Your task to perform on an android device: add a contact in the contacts app Image 0: 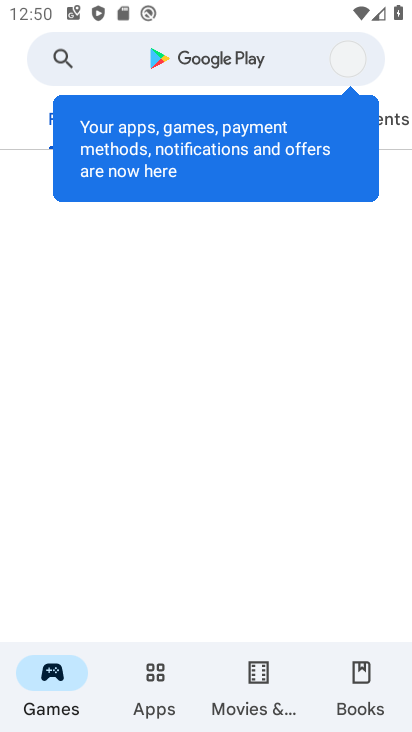
Step 0: press home button
Your task to perform on an android device: add a contact in the contacts app Image 1: 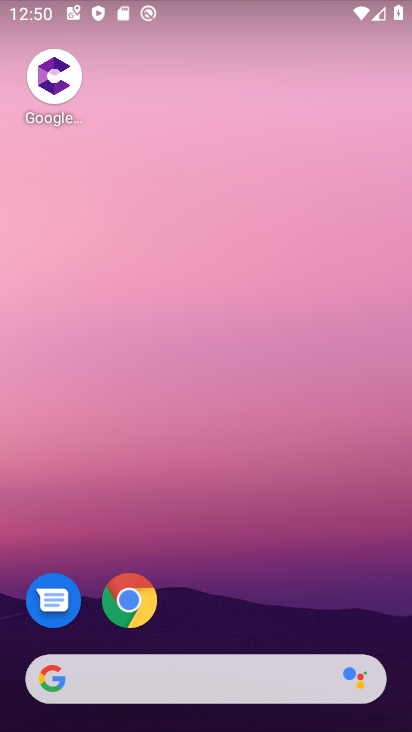
Step 1: drag from (320, 629) to (367, 188)
Your task to perform on an android device: add a contact in the contacts app Image 2: 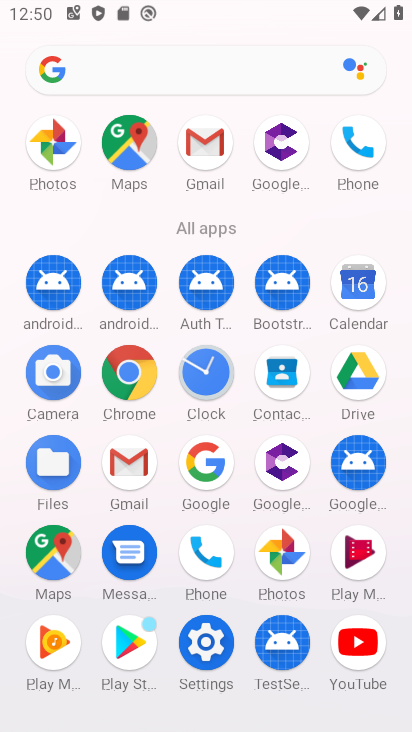
Step 2: click (290, 386)
Your task to perform on an android device: add a contact in the contacts app Image 3: 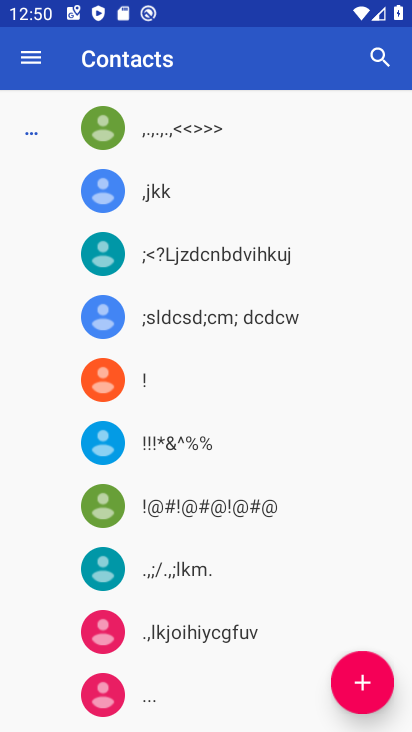
Step 3: click (354, 678)
Your task to perform on an android device: add a contact in the contacts app Image 4: 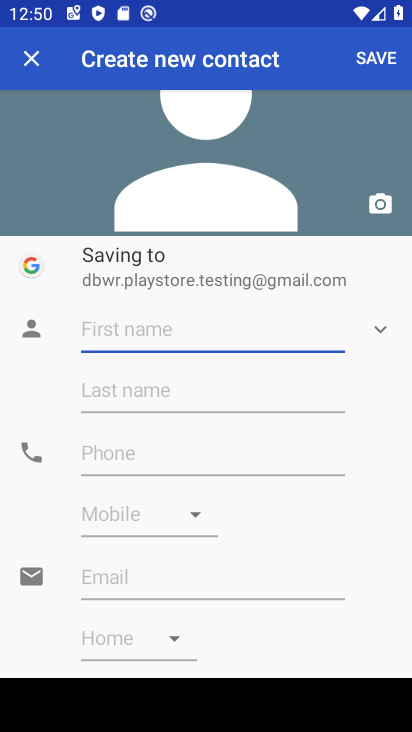
Step 4: click (189, 330)
Your task to perform on an android device: add a contact in the contacts app Image 5: 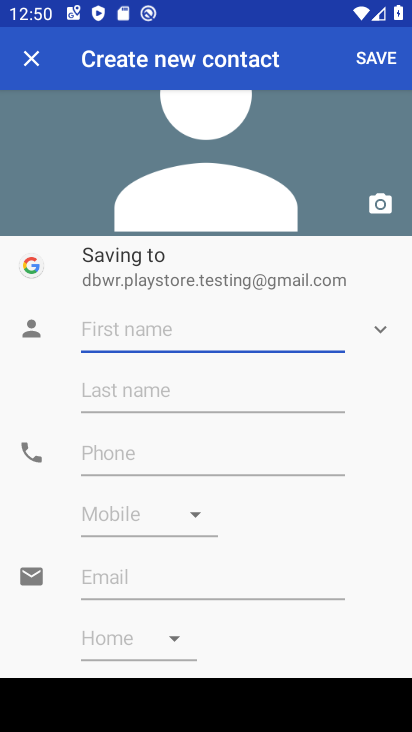
Step 5: type "Krishn"
Your task to perform on an android device: add a contact in the contacts app Image 6: 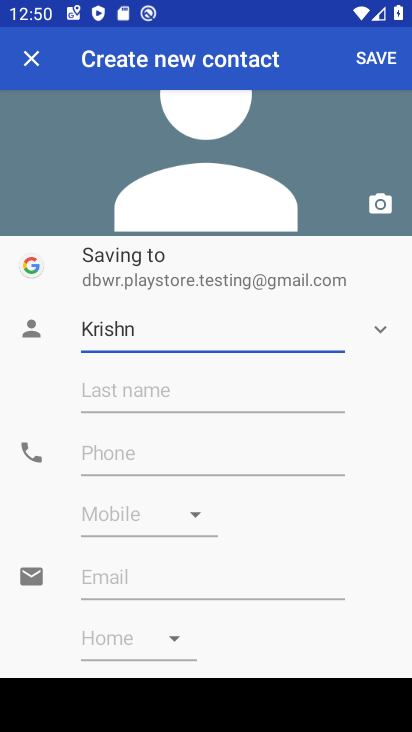
Step 6: click (161, 460)
Your task to perform on an android device: add a contact in the contacts app Image 7: 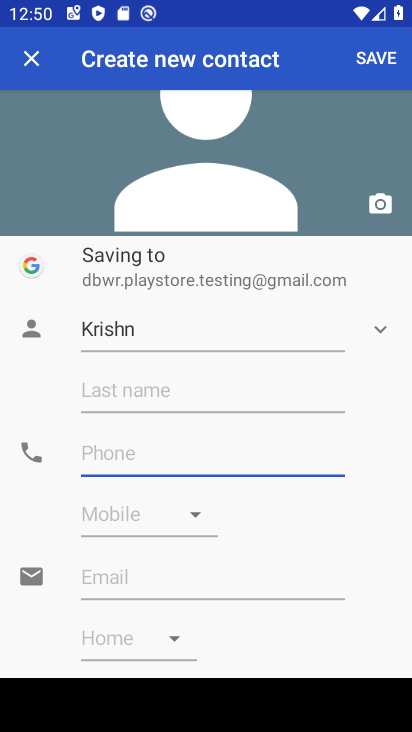
Step 7: type "9768765678"
Your task to perform on an android device: add a contact in the contacts app Image 8: 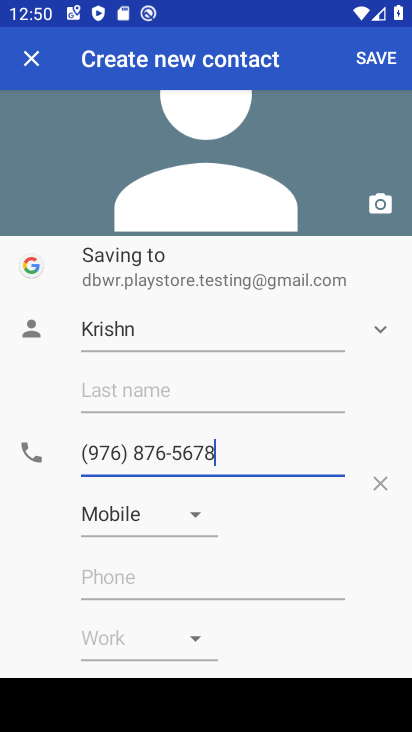
Step 8: click (370, 59)
Your task to perform on an android device: add a contact in the contacts app Image 9: 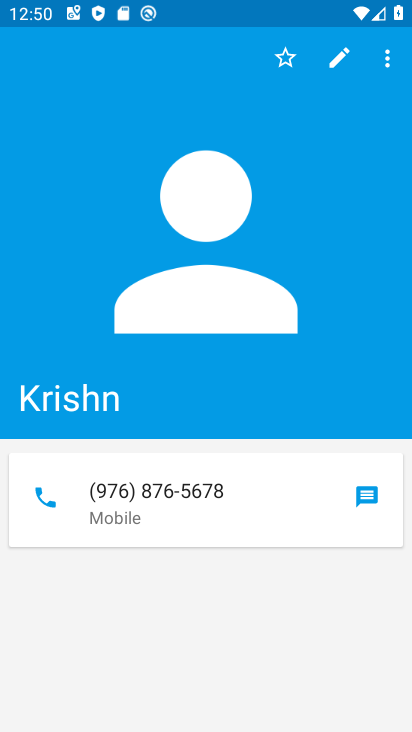
Step 9: task complete